Your task to perform on an android device: toggle improve location accuracy Image 0: 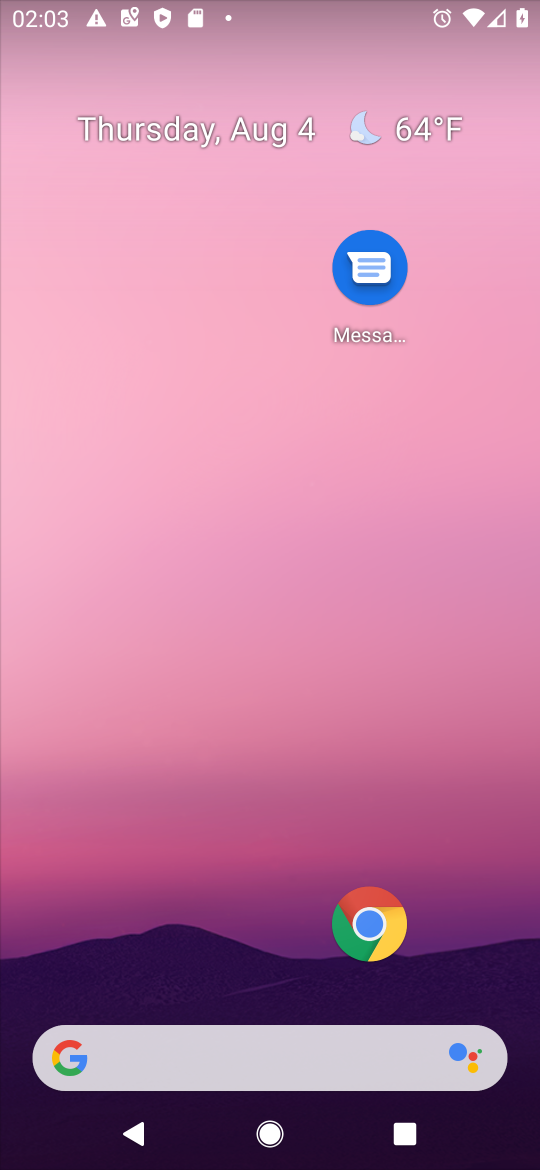
Step 0: drag from (82, 1035) to (287, 288)
Your task to perform on an android device: toggle improve location accuracy Image 1: 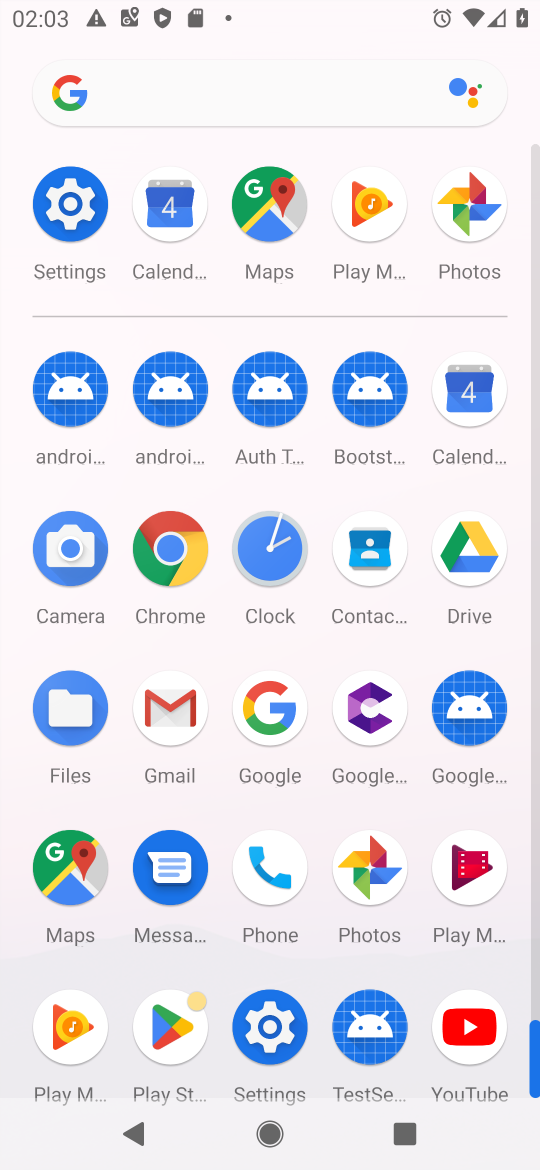
Step 1: click (262, 1055)
Your task to perform on an android device: toggle improve location accuracy Image 2: 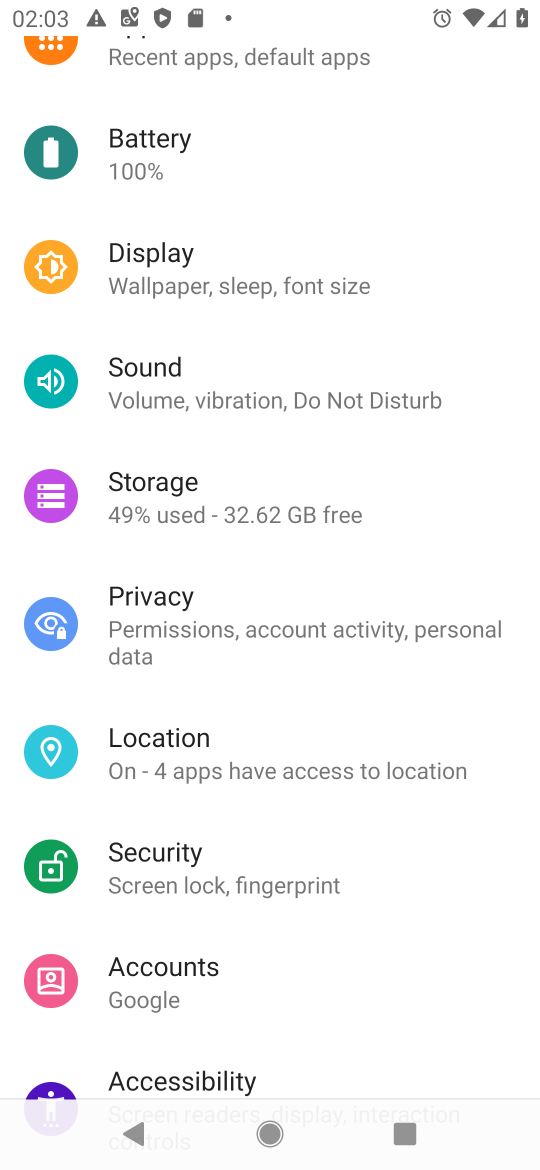
Step 2: click (216, 755)
Your task to perform on an android device: toggle improve location accuracy Image 3: 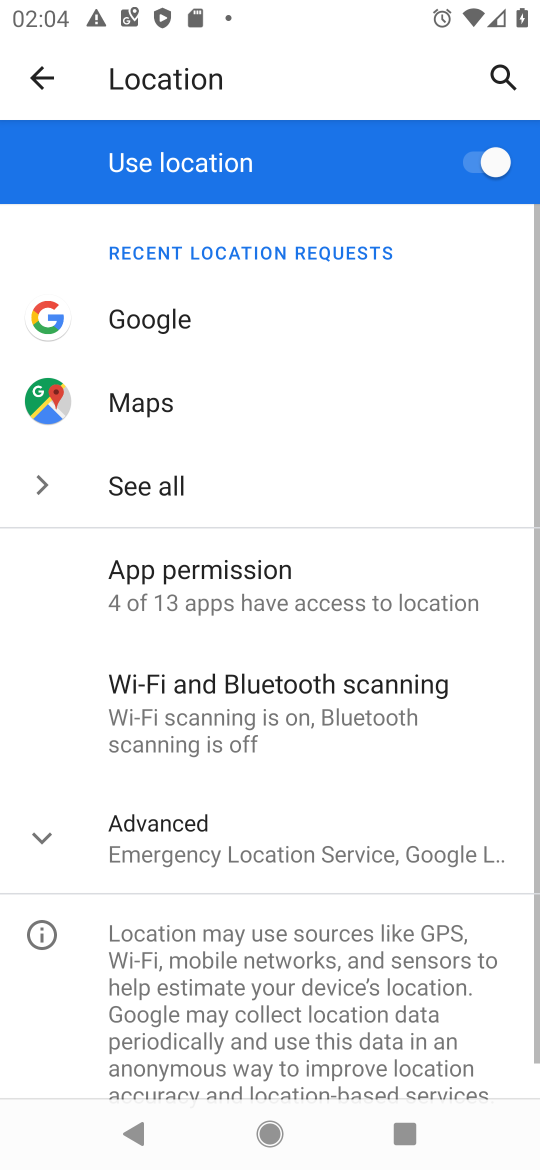
Step 3: click (142, 822)
Your task to perform on an android device: toggle improve location accuracy Image 4: 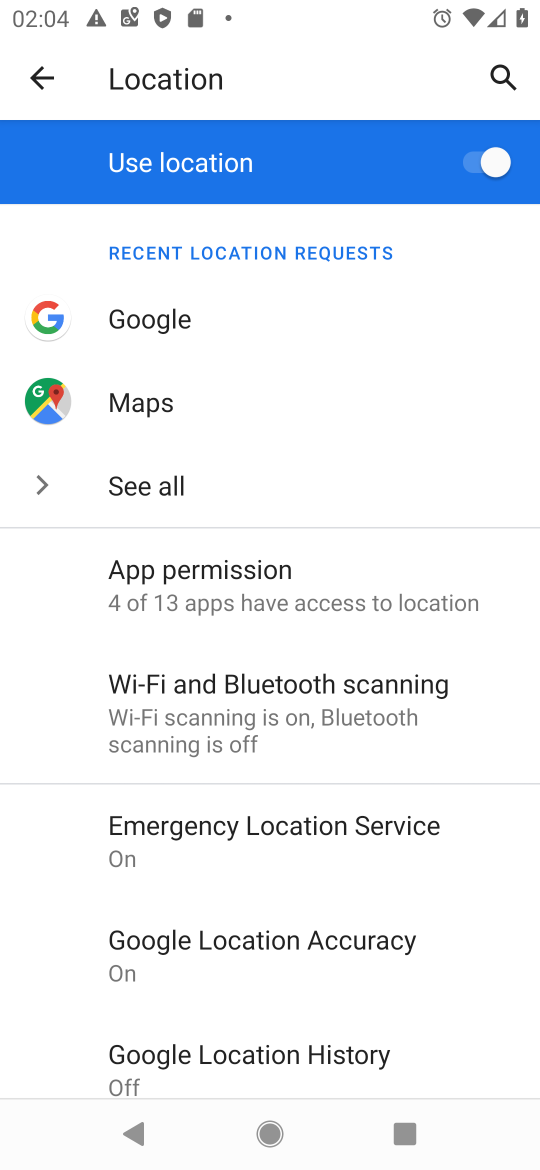
Step 4: task complete